Your task to perform on an android device: Open privacy settings Image 0: 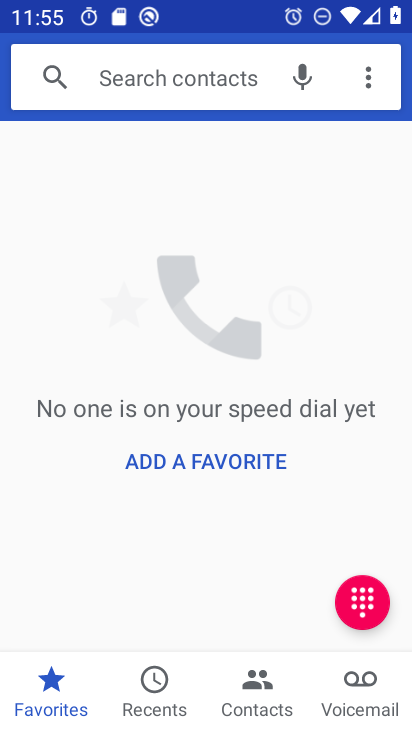
Step 0: press home button
Your task to perform on an android device: Open privacy settings Image 1: 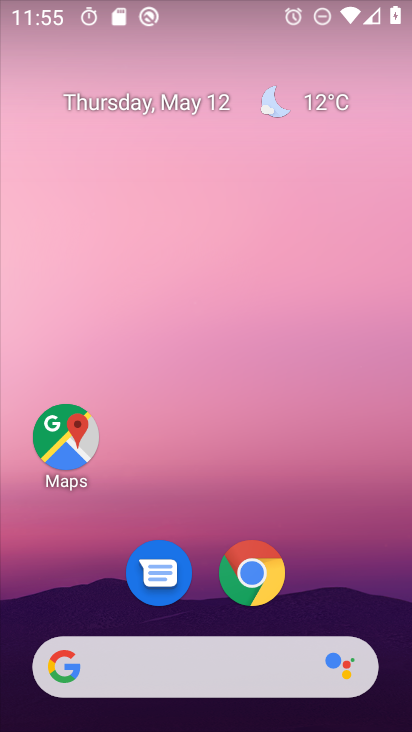
Step 1: drag from (398, 655) to (375, 444)
Your task to perform on an android device: Open privacy settings Image 2: 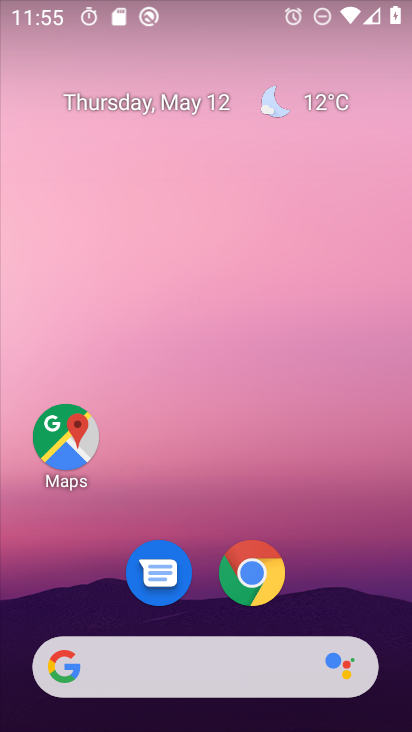
Step 2: click (248, 574)
Your task to perform on an android device: Open privacy settings Image 3: 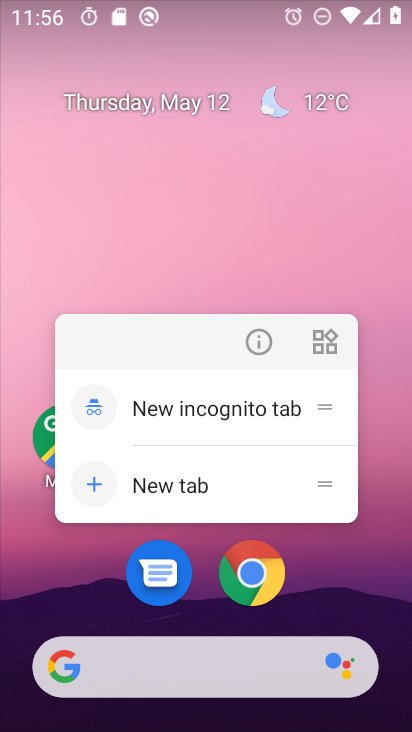
Step 3: click (255, 573)
Your task to perform on an android device: Open privacy settings Image 4: 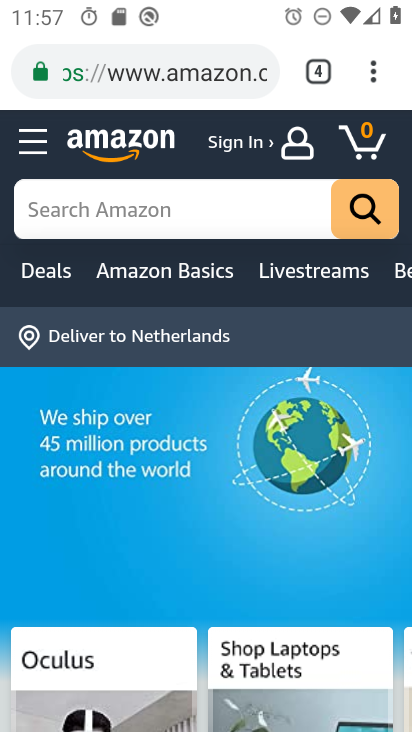
Step 4: click (369, 67)
Your task to perform on an android device: Open privacy settings Image 5: 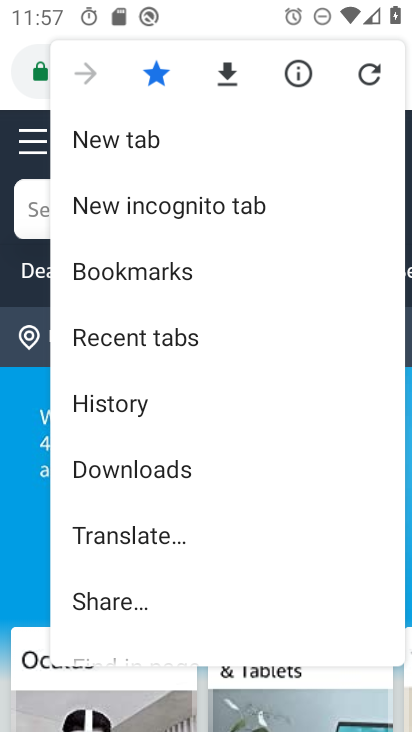
Step 5: drag from (220, 599) to (231, 375)
Your task to perform on an android device: Open privacy settings Image 6: 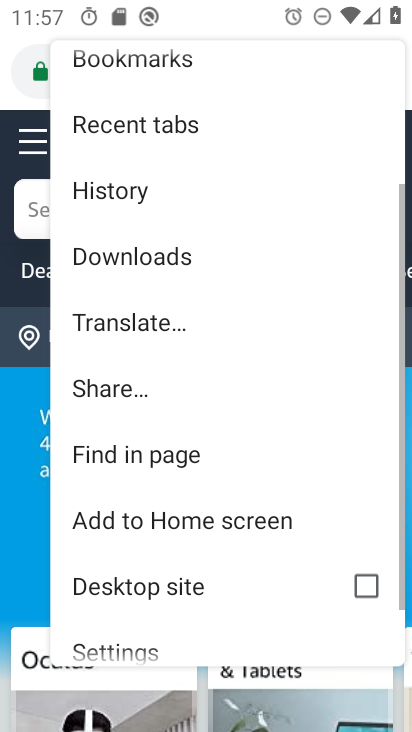
Step 6: click (235, 428)
Your task to perform on an android device: Open privacy settings Image 7: 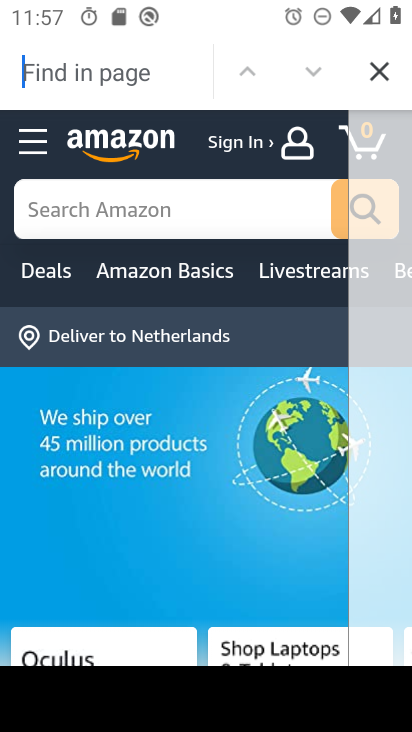
Step 7: click (383, 63)
Your task to perform on an android device: Open privacy settings Image 8: 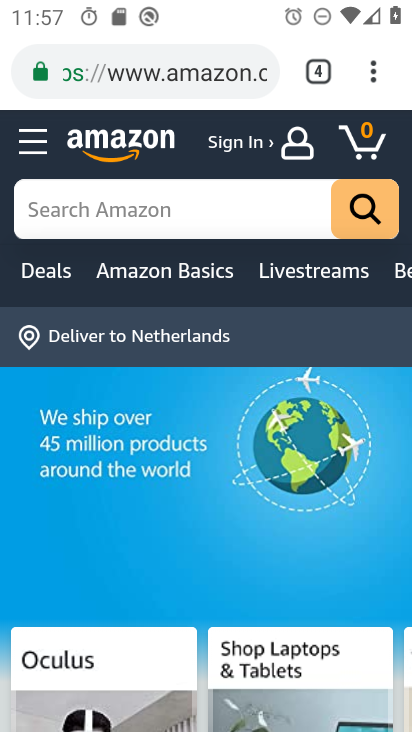
Step 8: click (374, 69)
Your task to perform on an android device: Open privacy settings Image 9: 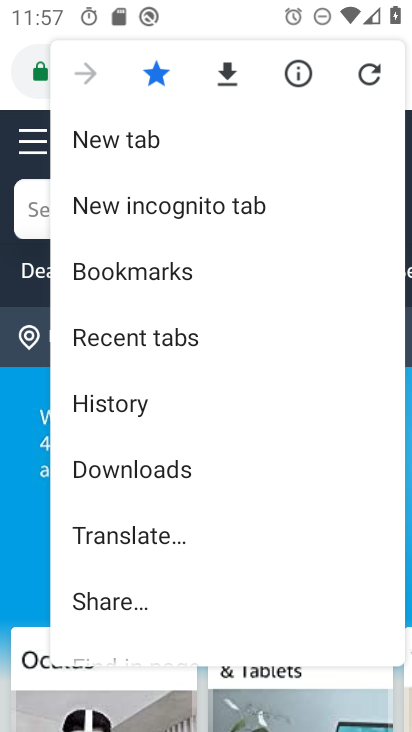
Step 9: drag from (250, 563) to (229, 335)
Your task to perform on an android device: Open privacy settings Image 10: 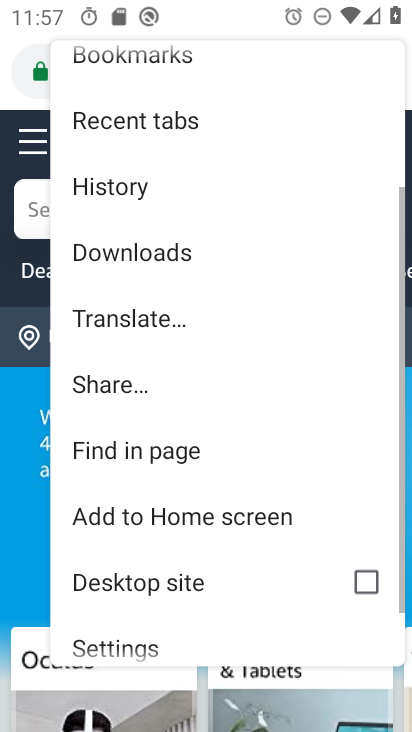
Step 10: drag from (232, 619) to (249, 384)
Your task to perform on an android device: Open privacy settings Image 11: 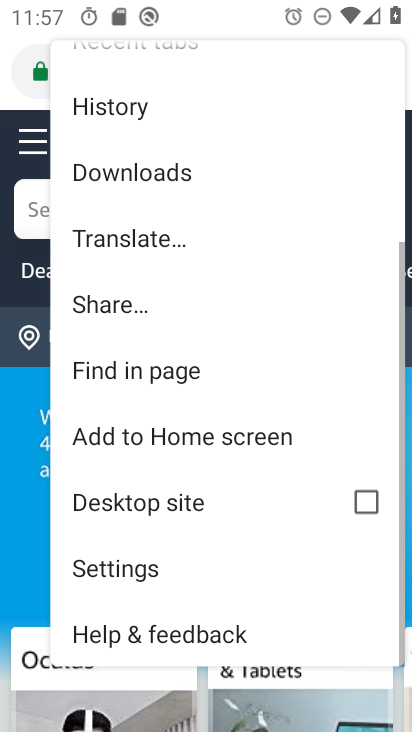
Step 11: drag from (247, 607) to (246, 311)
Your task to perform on an android device: Open privacy settings Image 12: 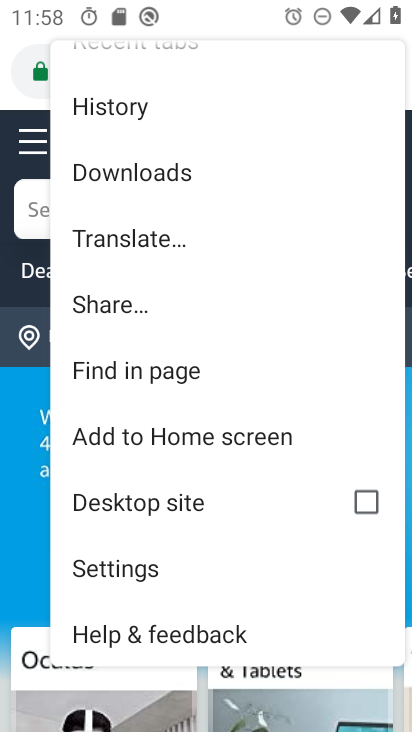
Step 12: click (95, 569)
Your task to perform on an android device: Open privacy settings Image 13: 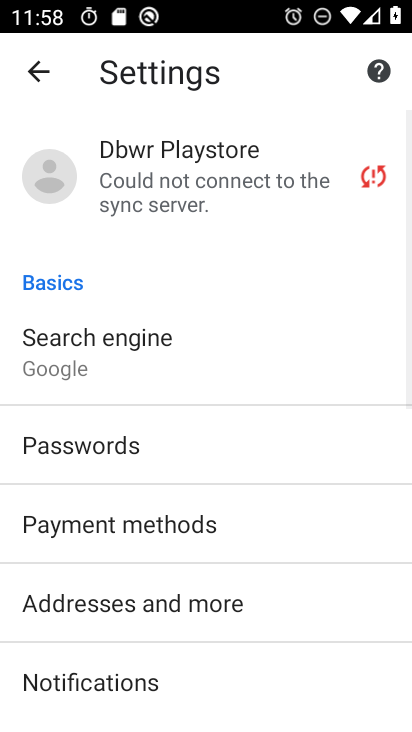
Step 13: drag from (270, 659) to (299, 375)
Your task to perform on an android device: Open privacy settings Image 14: 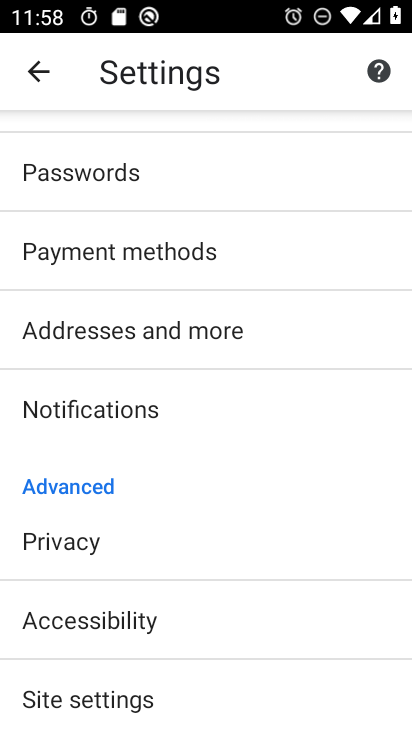
Step 14: drag from (215, 668) to (249, 466)
Your task to perform on an android device: Open privacy settings Image 15: 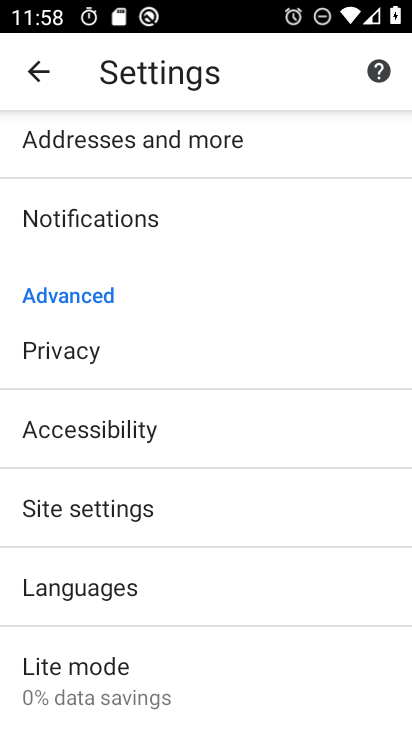
Step 15: click (81, 350)
Your task to perform on an android device: Open privacy settings Image 16: 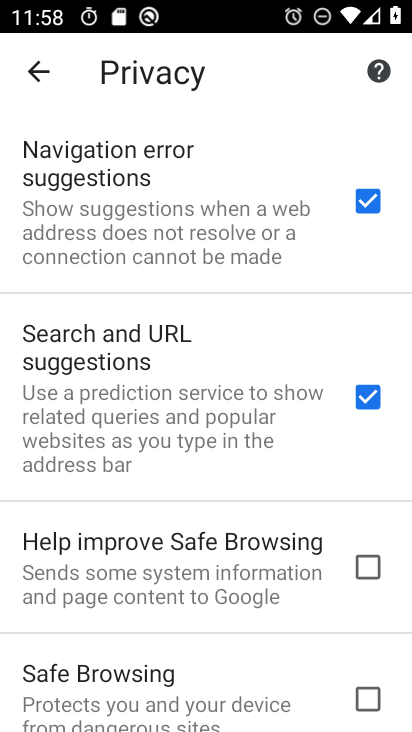
Step 16: task complete